Your task to perform on an android device: Open settings on Google Maps Image 0: 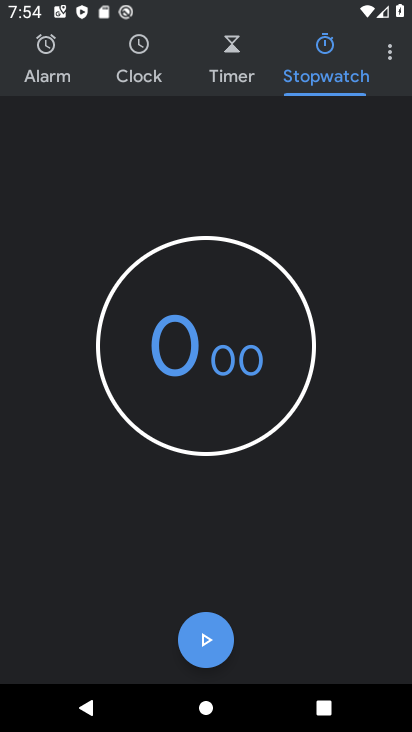
Step 0: press home button
Your task to perform on an android device: Open settings on Google Maps Image 1: 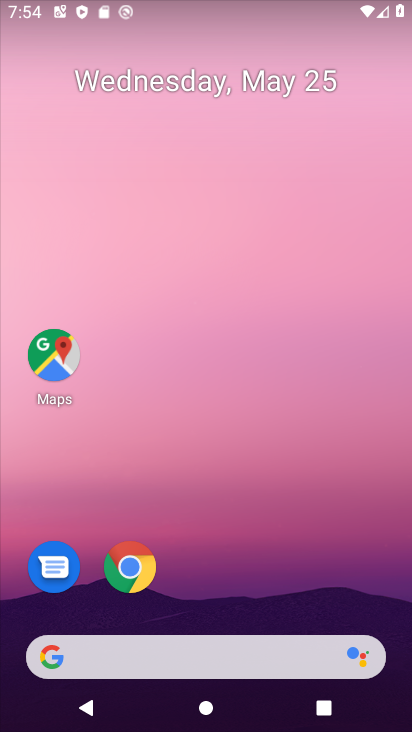
Step 1: click (55, 348)
Your task to perform on an android device: Open settings on Google Maps Image 2: 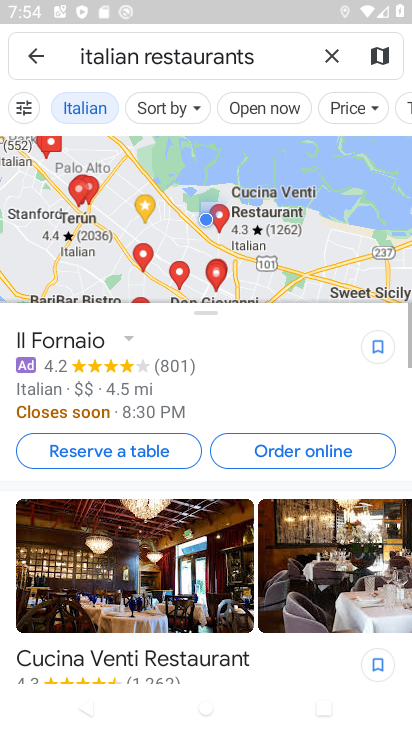
Step 2: task complete